Your task to perform on an android device: change the clock display to show seconds Image 0: 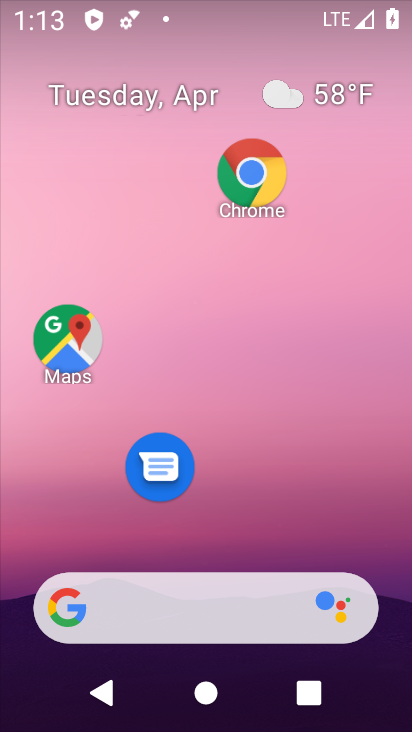
Step 0: drag from (338, 596) to (336, 60)
Your task to perform on an android device: change the clock display to show seconds Image 1: 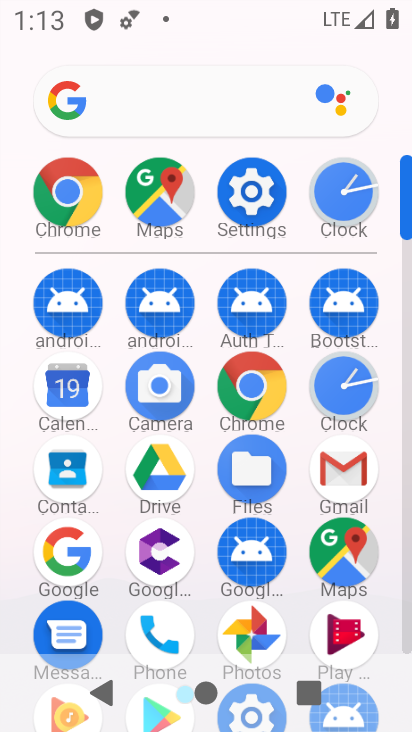
Step 1: click (337, 388)
Your task to perform on an android device: change the clock display to show seconds Image 2: 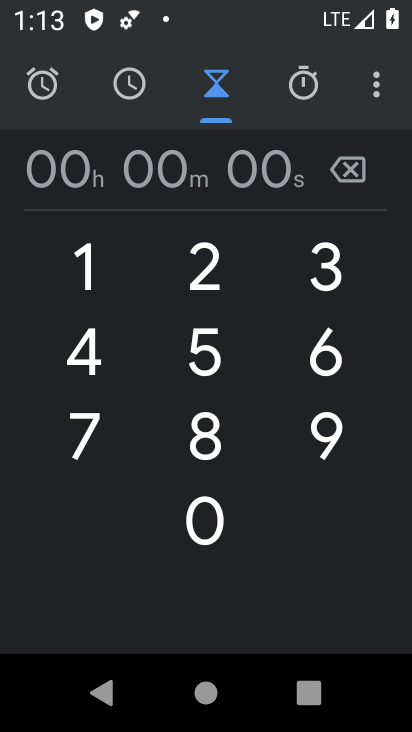
Step 2: click (355, 81)
Your task to perform on an android device: change the clock display to show seconds Image 3: 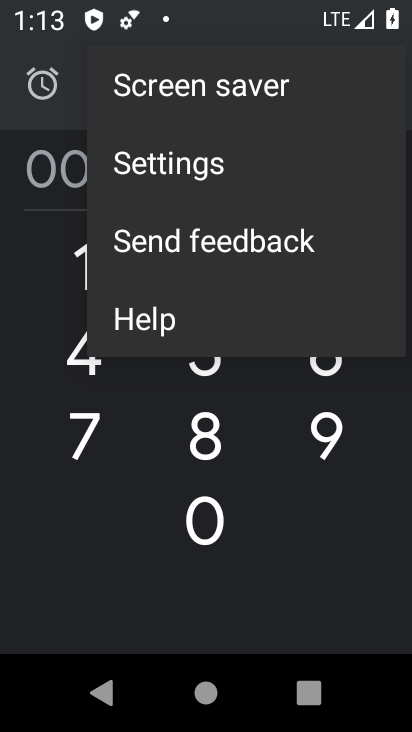
Step 3: click (240, 158)
Your task to perform on an android device: change the clock display to show seconds Image 4: 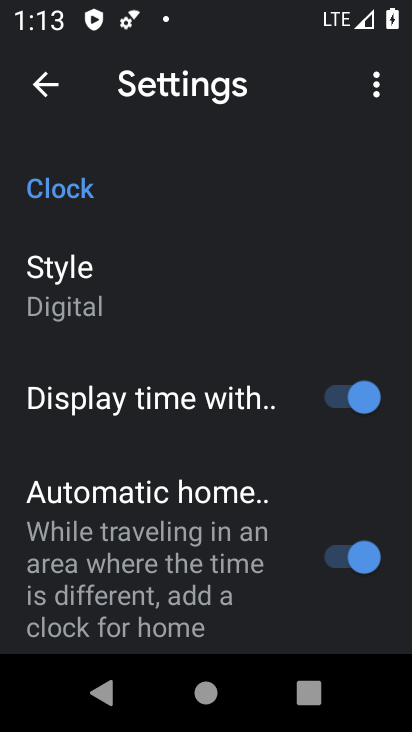
Step 4: task complete